Your task to perform on an android device: set the stopwatch Image 0: 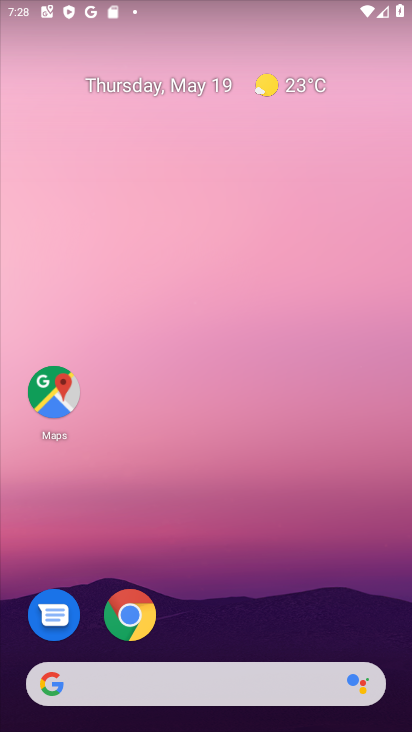
Step 0: drag from (359, 624) to (300, 13)
Your task to perform on an android device: set the stopwatch Image 1: 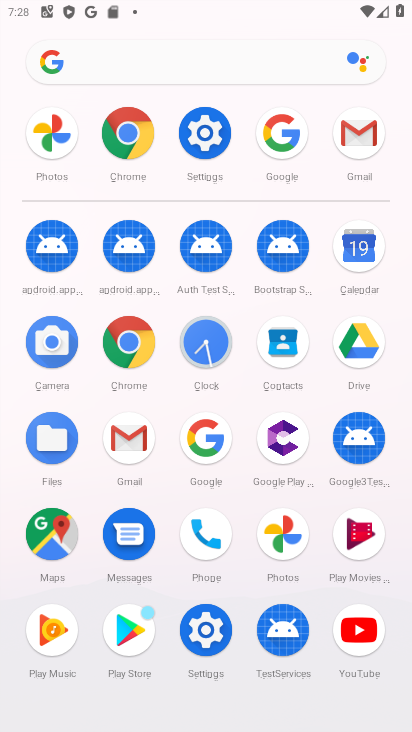
Step 1: click (199, 360)
Your task to perform on an android device: set the stopwatch Image 2: 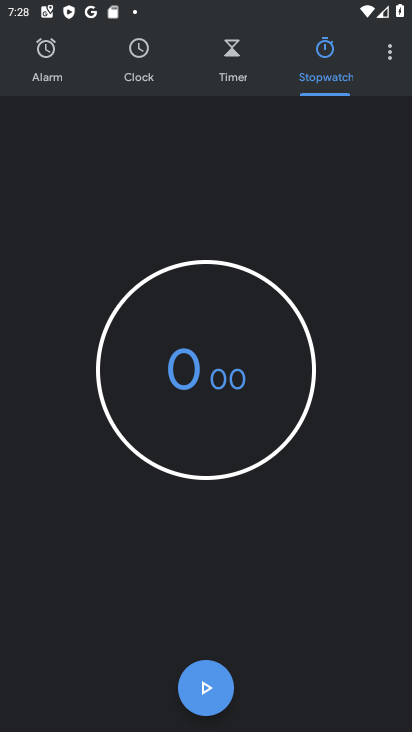
Step 2: task complete